Your task to perform on an android device: What's the weather? Image 0: 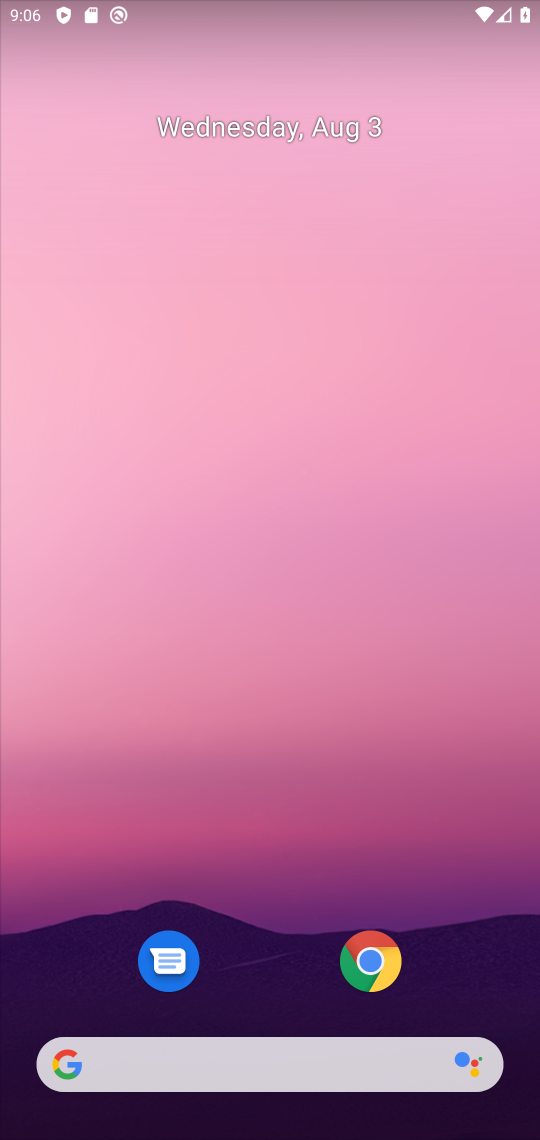
Step 0: drag from (287, 1025) to (195, 200)
Your task to perform on an android device: What's the weather? Image 1: 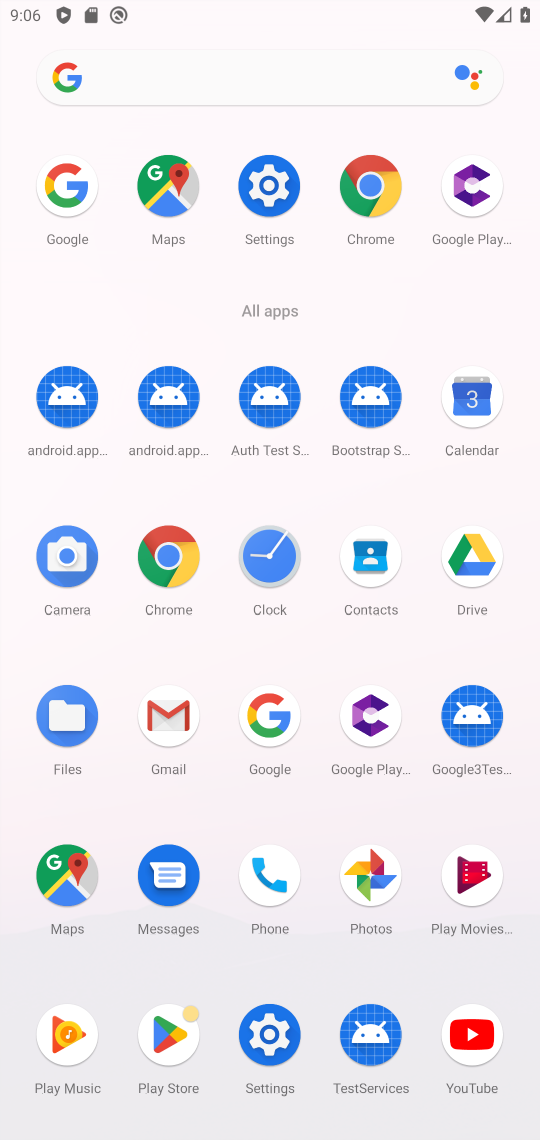
Step 1: click (265, 704)
Your task to perform on an android device: What's the weather? Image 2: 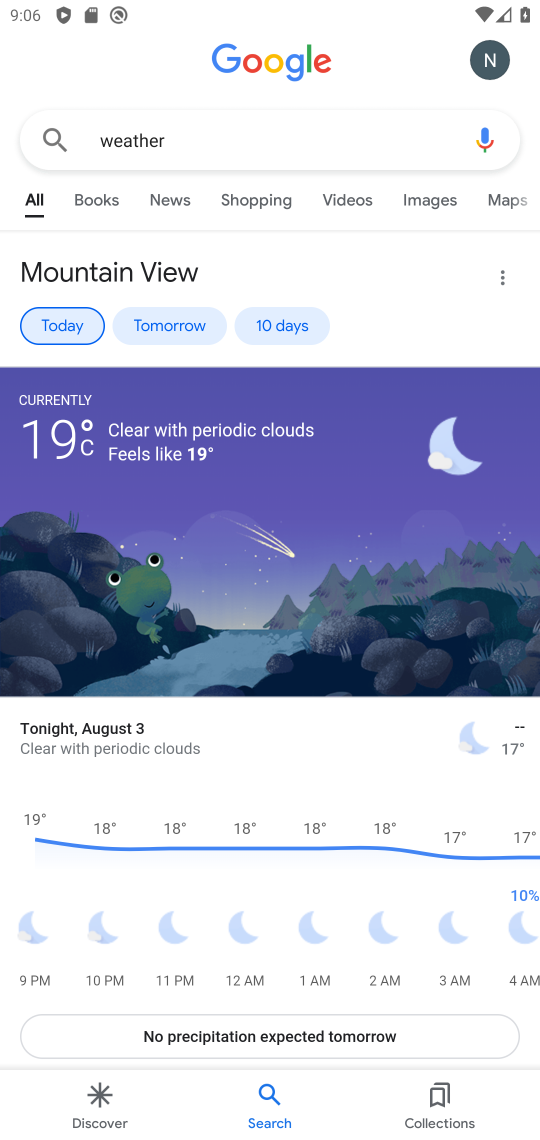
Step 2: task complete